Your task to perform on an android device: turn on the 12-hour format for clock Image 0: 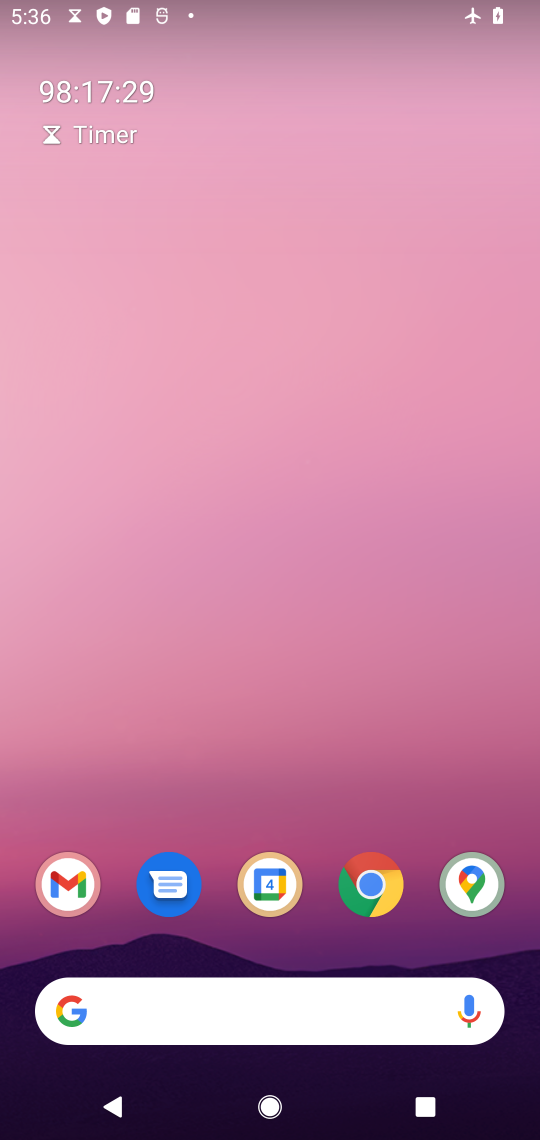
Step 0: drag from (261, 988) to (314, 196)
Your task to perform on an android device: turn on the 12-hour format for clock Image 1: 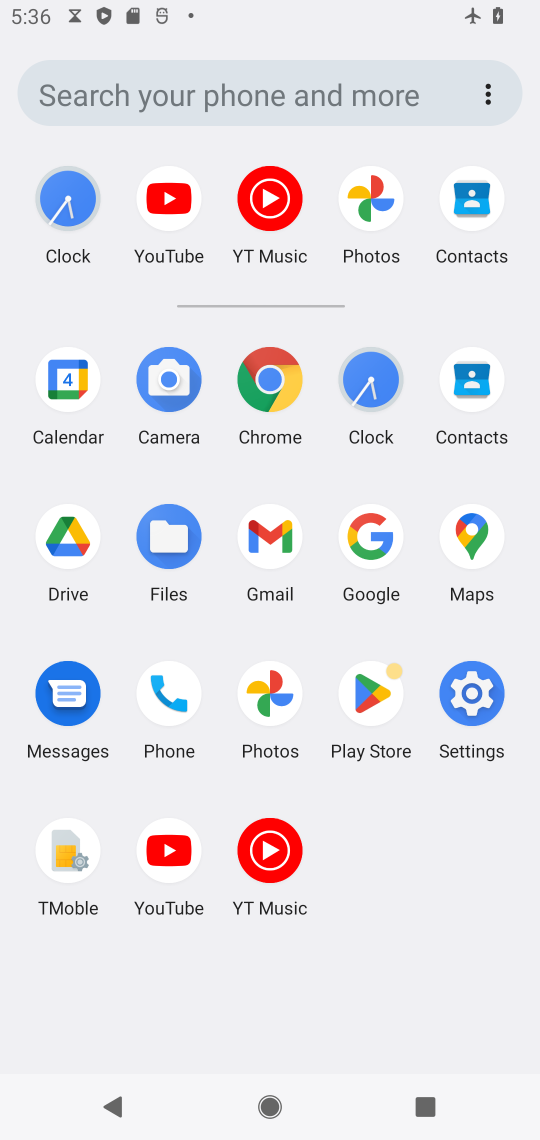
Step 1: click (357, 370)
Your task to perform on an android device: turn on the 12-hour format for clock Image 2: 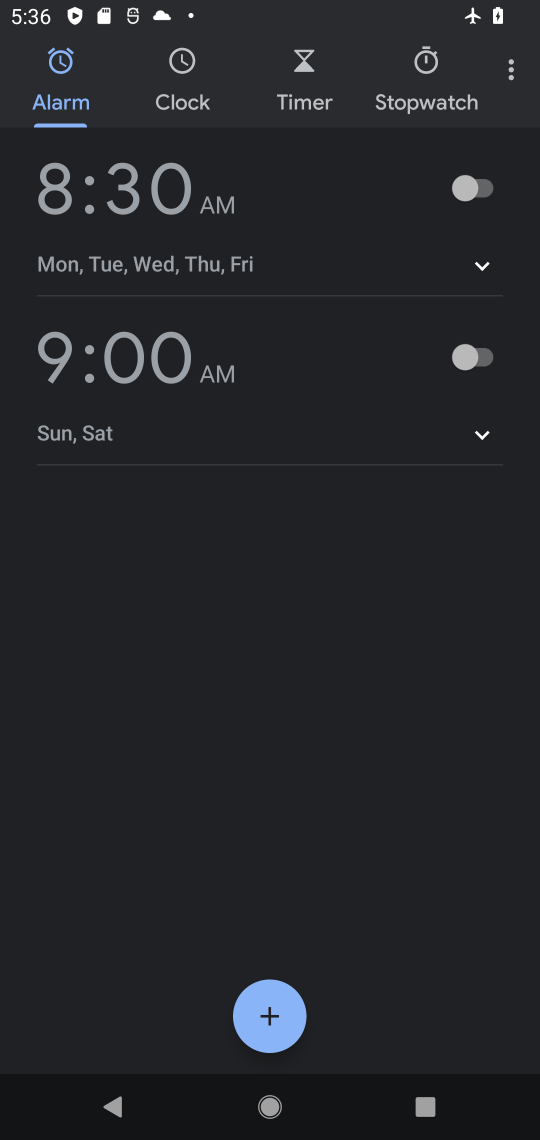
Step 2: click (515, 76)
Your task to perform on an android device: turn on the 12-hour format for clock Image 3: 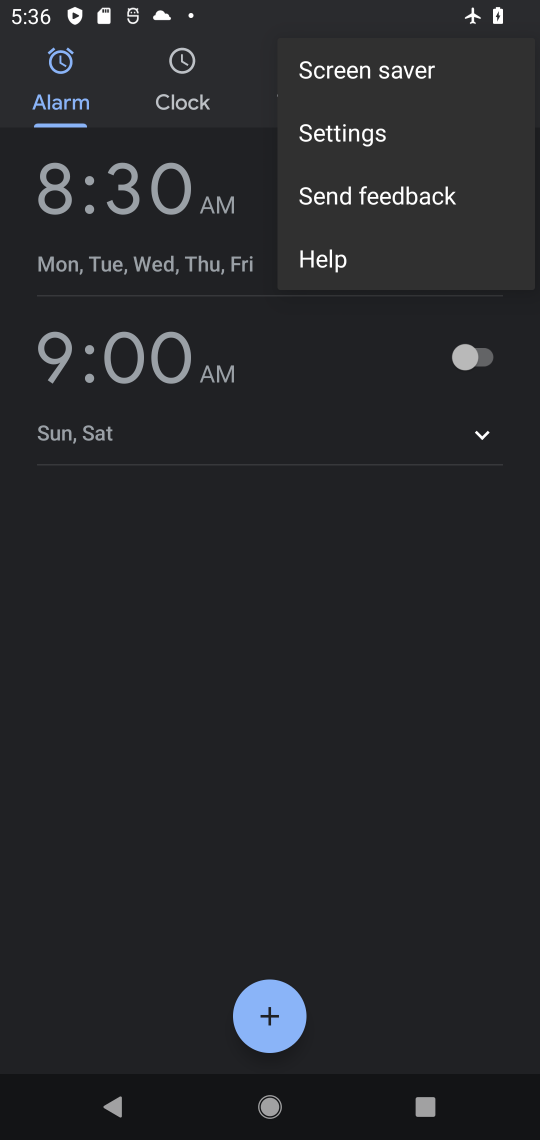
Step 3: click (362, 138)
Your task to perform on an android device: turn on the 12-hour format for clock Image 4: 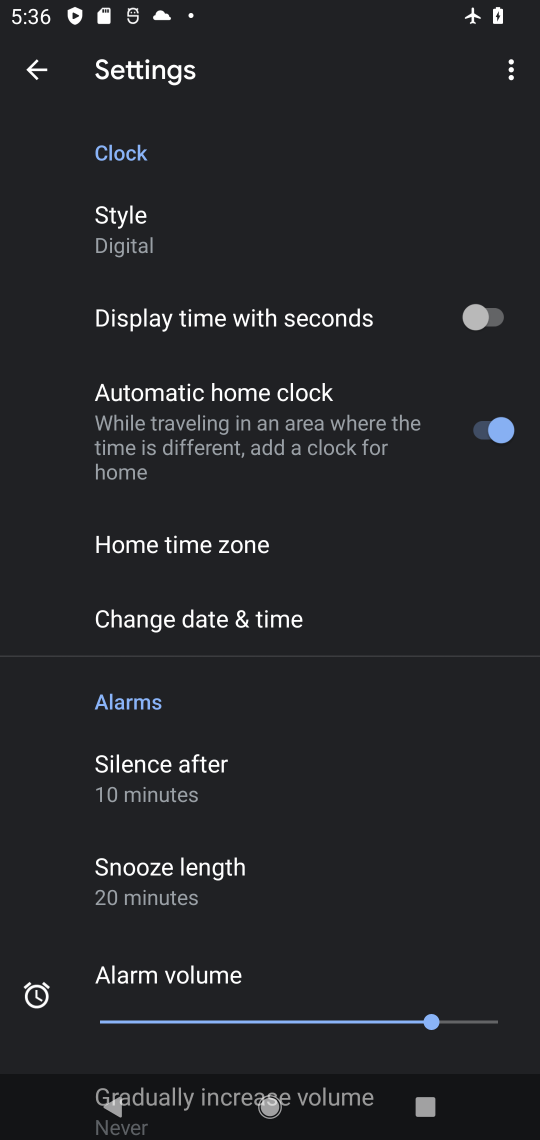
Step 4: click (241, 619)
Your task to perform on an android device: turn on the 12-hour format for clock Image 5: 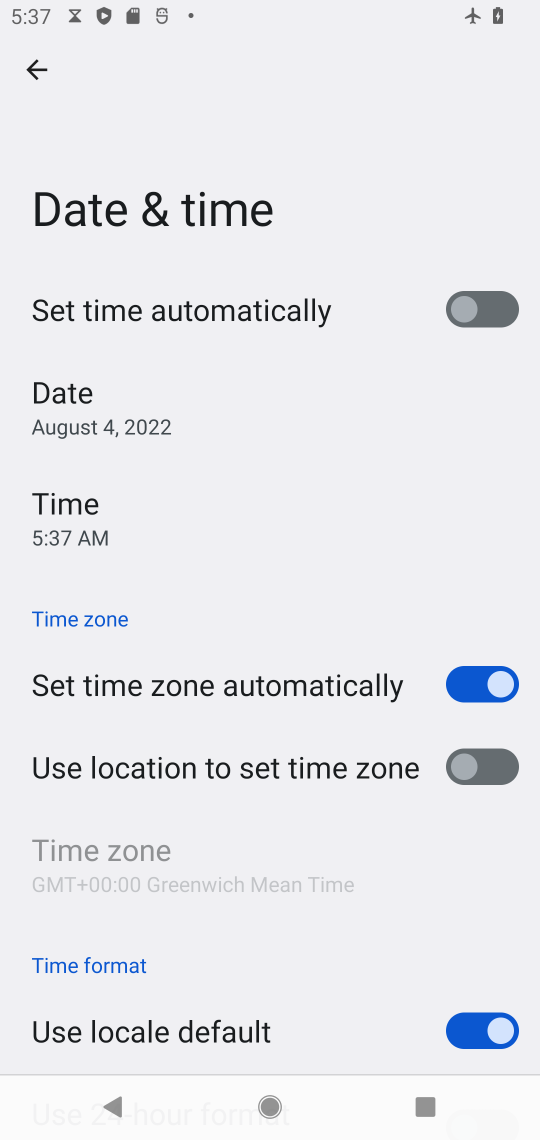
Step 5: drag from (224, 978) to (319, 535)
Your task to perform on an android device: turn on the 12-hour format for clock Image 6: 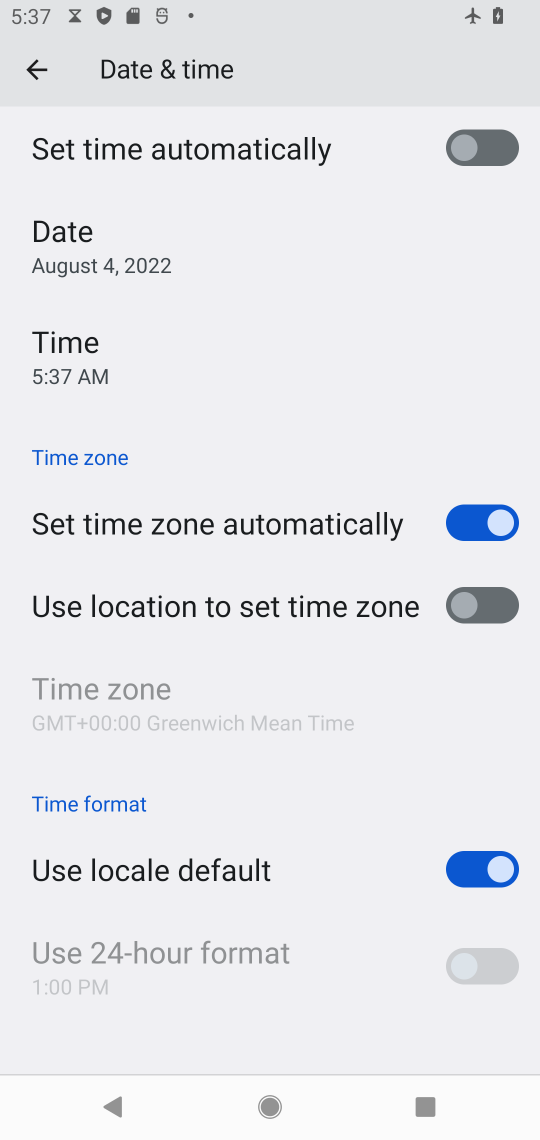
Step 6: click (481, 872)
Your task to perform on an android device: turn on the 12-hour format for clock Image 7: 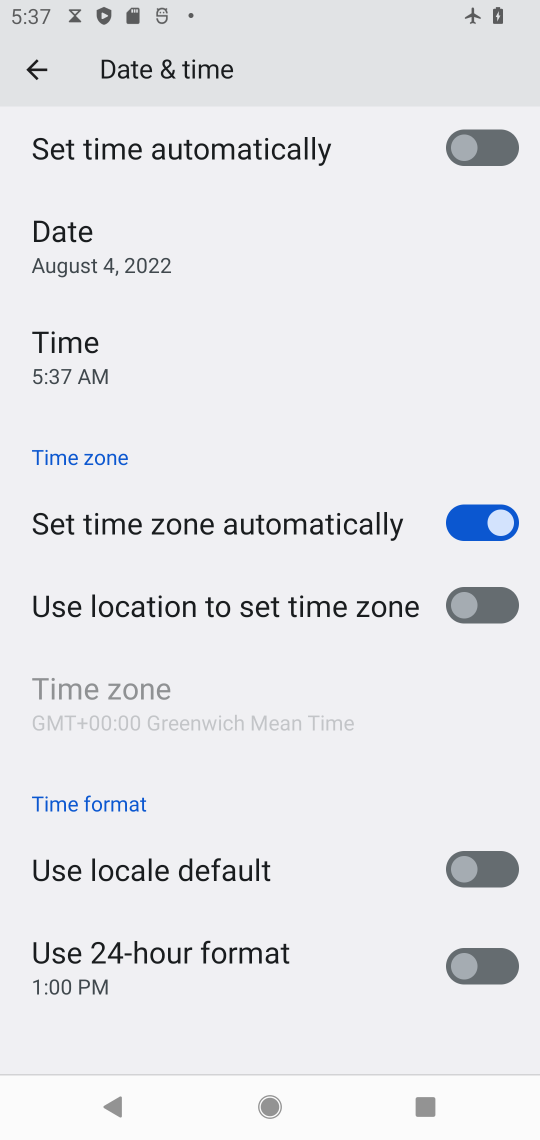
Step 7: click (504, 978)
Your task to perform on an android device: turn on the 12-hour format for clock Image 8: 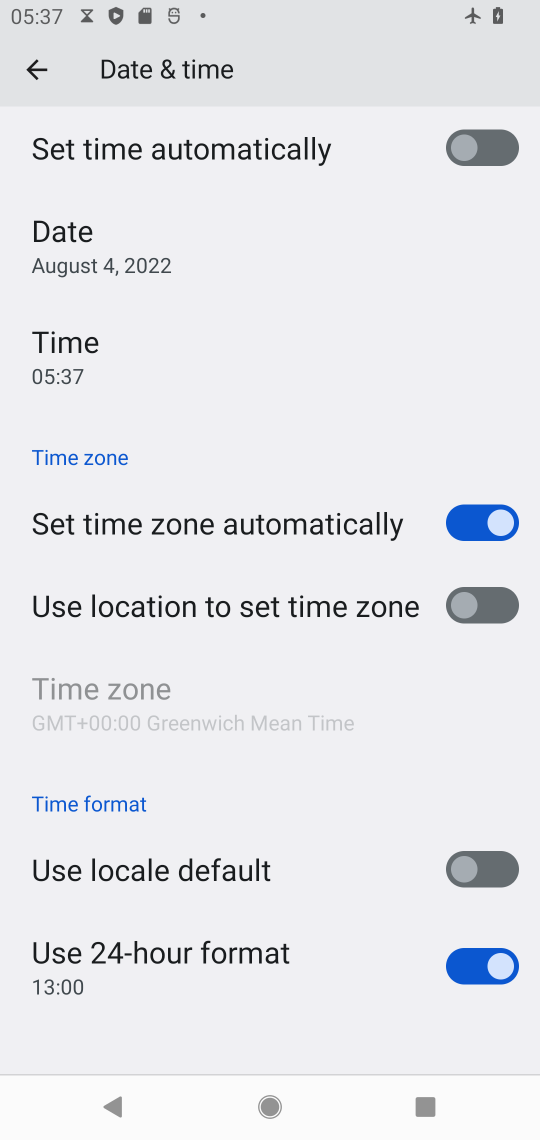
Step 8: task complete